Your task to perform on an android device: Turn off the flashlight Image 0: 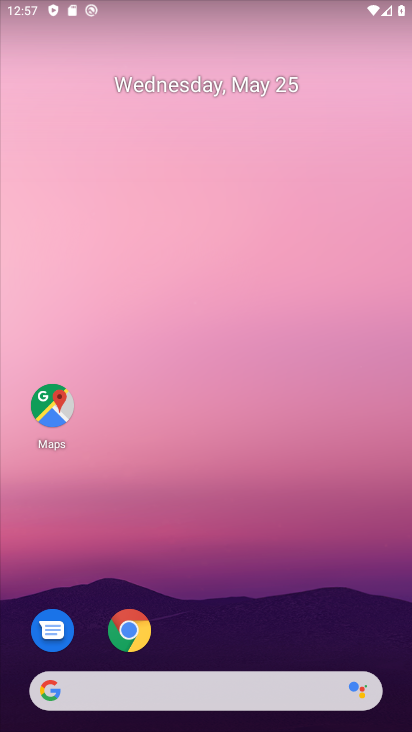
Step 0: drag from (313, 640) to (232, 161)
Your task to perform on an android device: Turn off the flashlight Image 1: 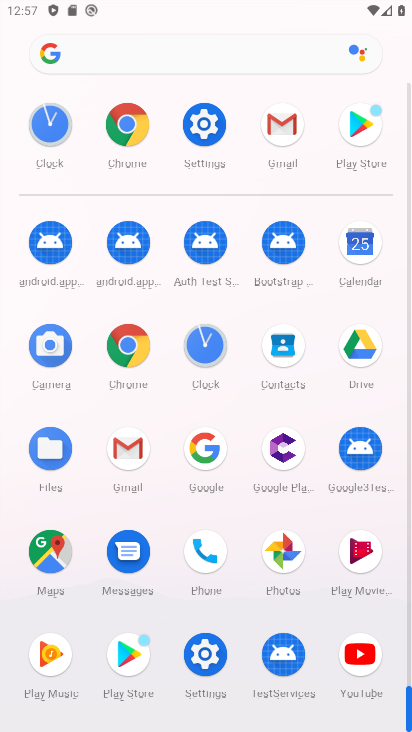
Step 1: task complete